Your task to perform on an android device: Open settings Image 0: 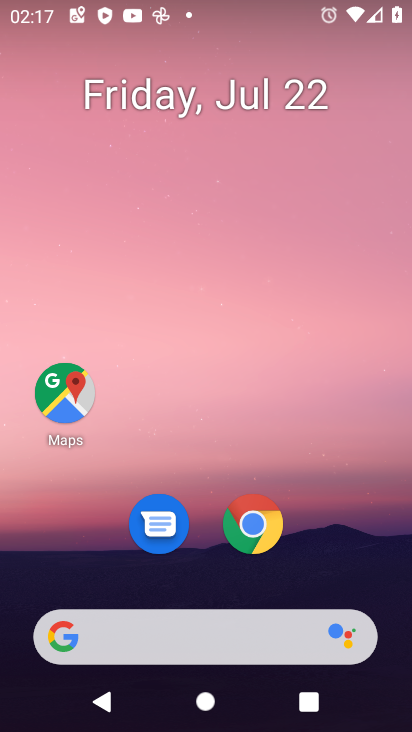
Step 0: press home button
Your task to perform on an android device: Open settings Image 1: 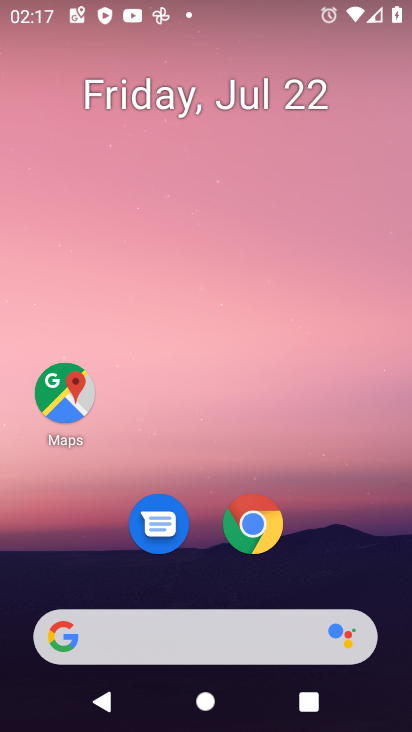
Step 1: drag from (169, 617) to (298, 93)
Your task to perform on an android device: Open settings Image 2: 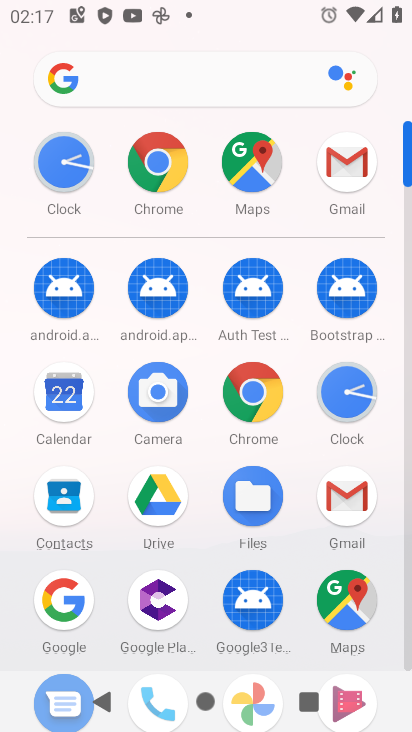
Step 2: drag from (211, 585) to (345, 103)
Your task to perform on an android device: Open settings Image 3: 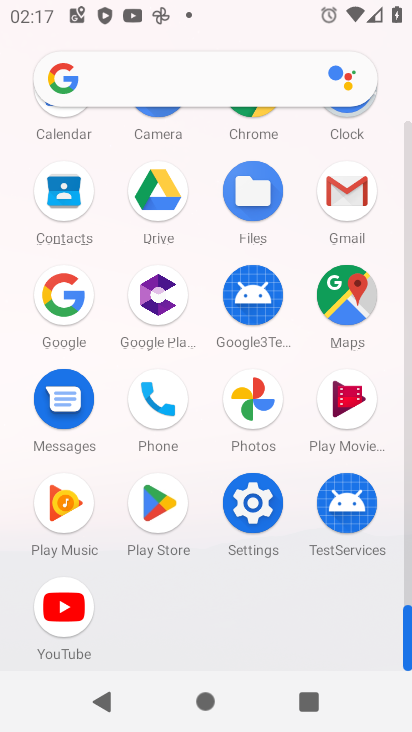
Step 3: click (252, 495)
Your task to perform on an android device: Open settings Image 4: 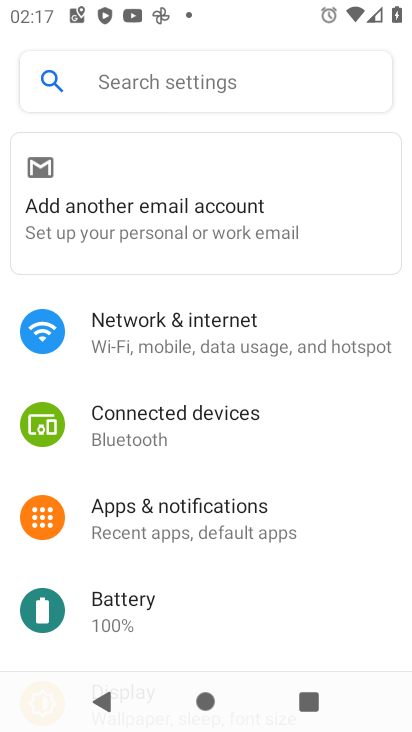
Step 4: task complete